Your task to perform on an android device: Set the phone to "Do not disturb". Image 0: 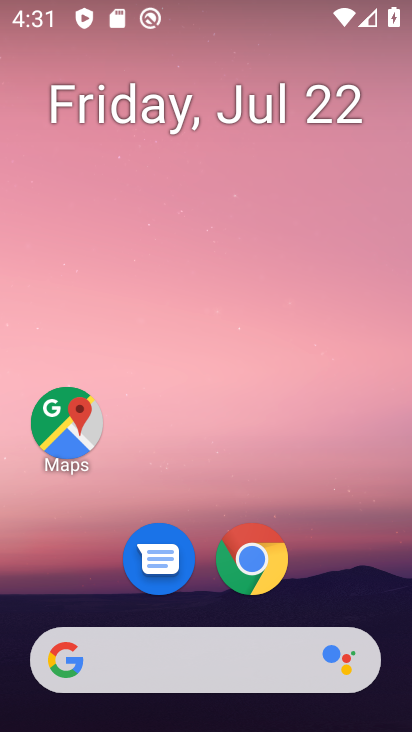
Step 0: drag from (174, 17) to (225, 556)
Your task to perform on an android device: Set the phone to "Do not disturb". Image 1: 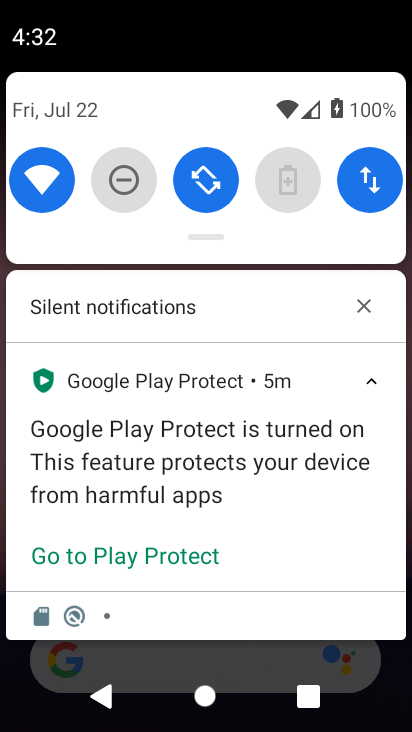
Step 1: click (126, 181)
Your task to perform on an android device: Set the phone to "Do not disturb". Image 2: 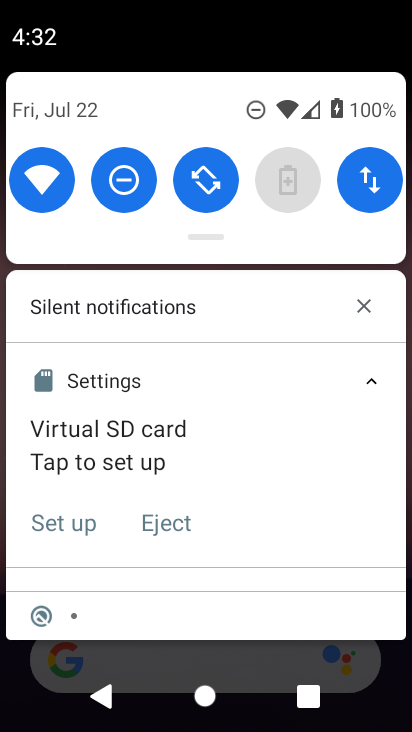
Step 2: task complete